Your task to perform on an android device: Open my contact list Image 0: 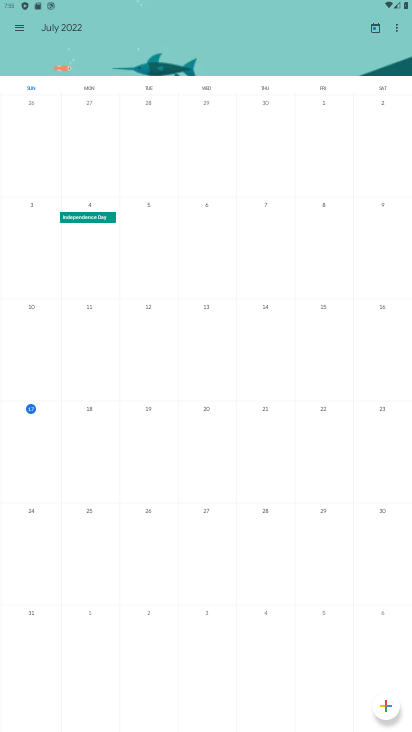
Step 0: press home button
Your task to perform on an android device: Open my contact list Image 1: 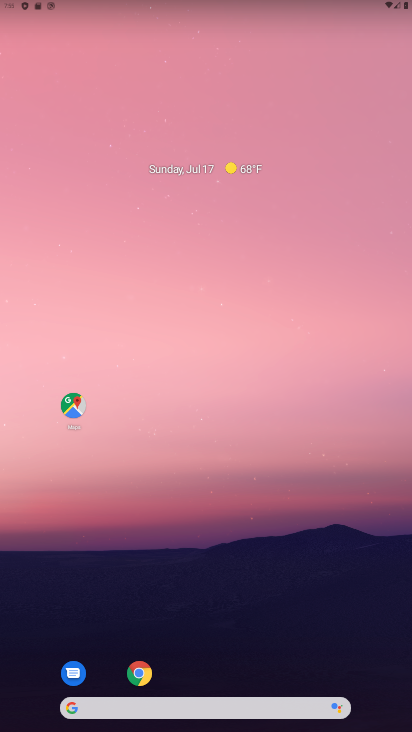
Step 1: drag from (313, 620) to (124, 8)
Your task to perform on an android device: Open my contact list Image 2: 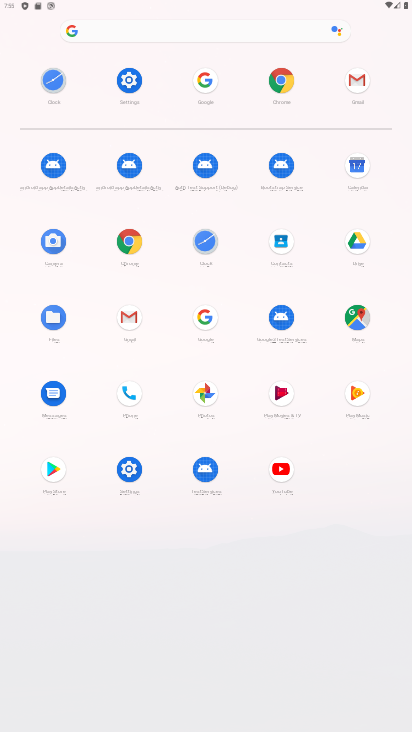
Step 2: click (122, 399)
Your task to perform on an android device: Open my contact list Image 3: 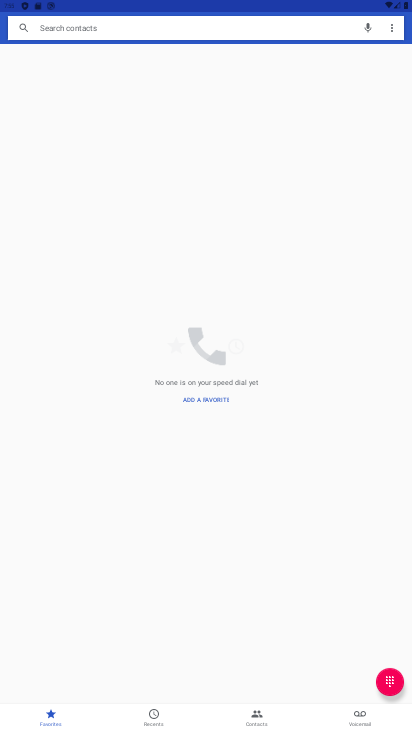
Step 3: click (252, 720)
Your task to perform on an android device: Open my contact list Image 4: 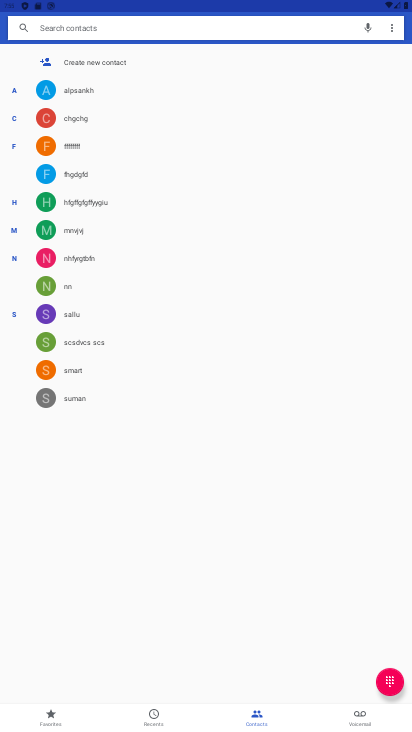
Step 4: task complete